Your task to perform on an android device: star an email in the gmail app Image 0: 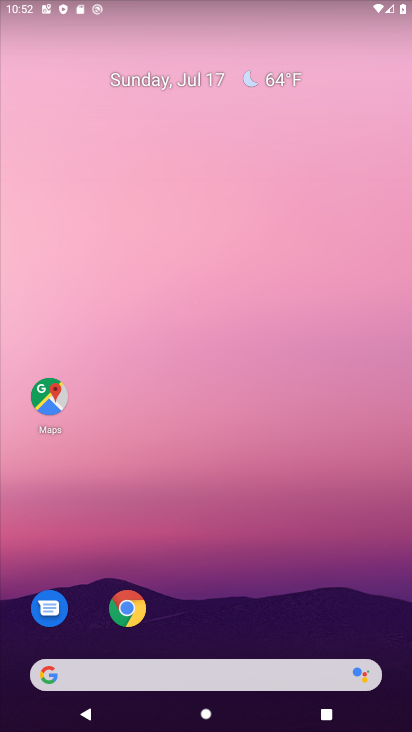
Step 0: drag from (389, 648) to (282, 63)
Your task to perform on an android device: star an email in the gmail app Image 1: 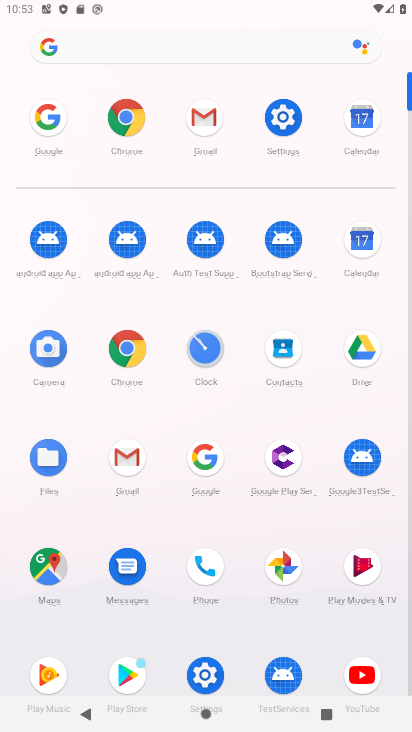
Step 1: click (127, 467)
Your task to perform on an android device: star an email in the gmail app Image 2: 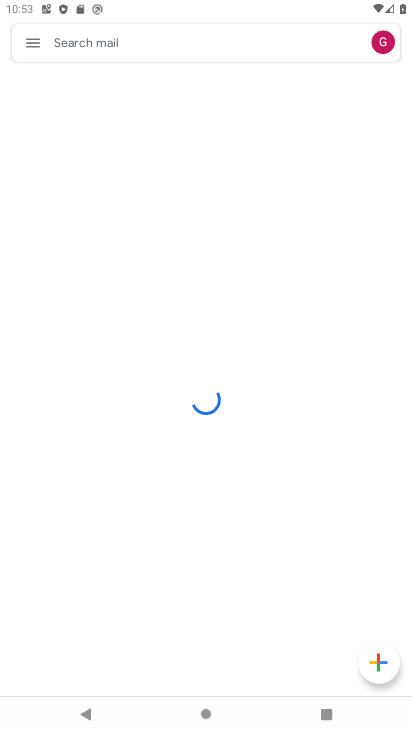
Step 2: task complete